Your task to perform on an android device: Search for rayovac triple a on walmart, select the first entry, and add it to the cart. Image 0: 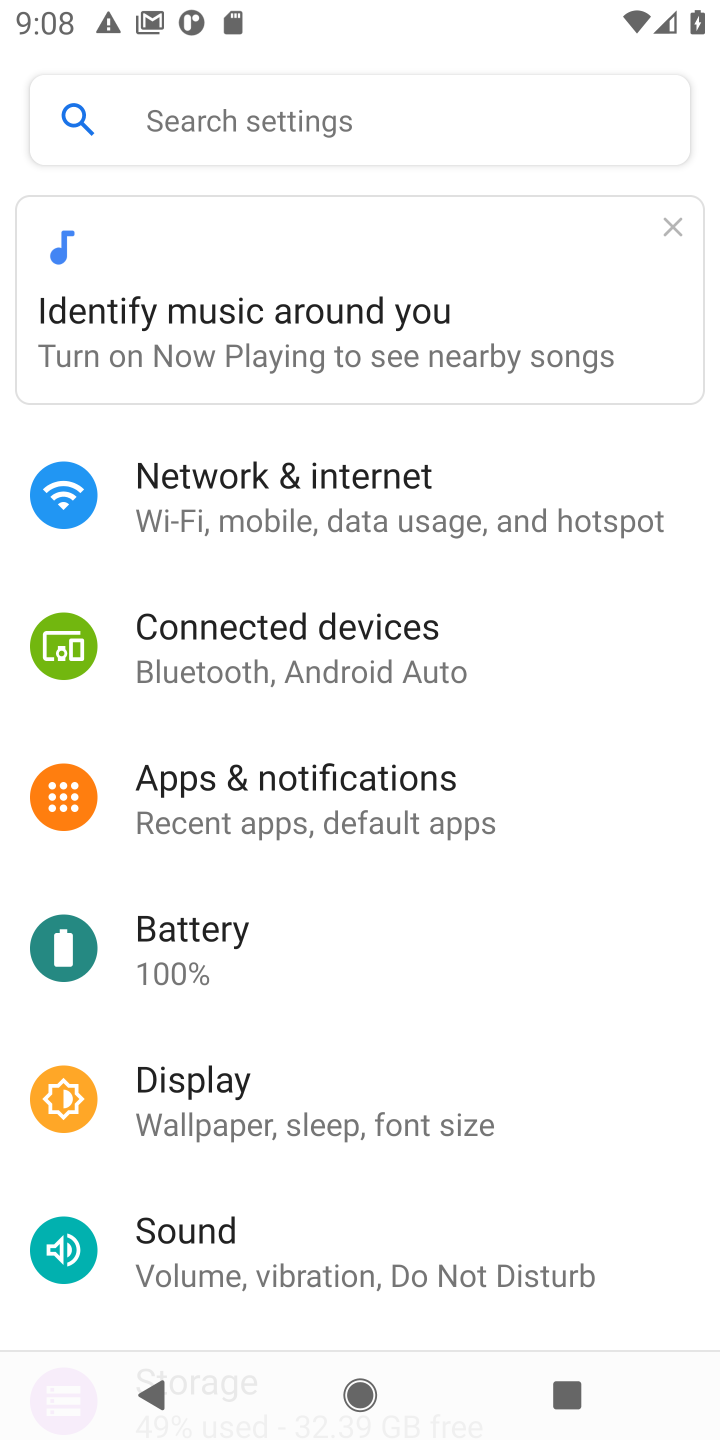
Step 0: press home button
Your task to perform on an android device: Search for rayovac triple a on walmart, select the first entry, and add it to the cart. Image 1: 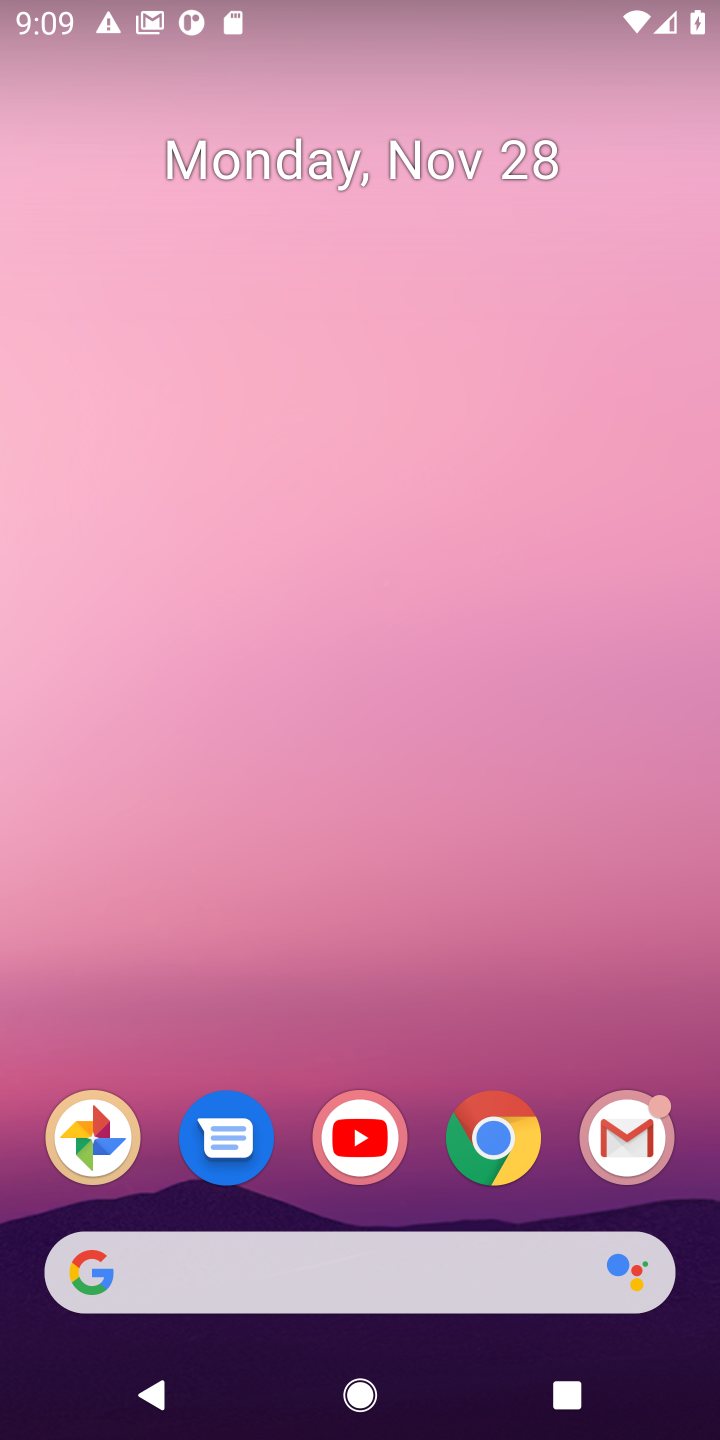
Step 1: click (487, 1124)
Your task to perform on an android device: Search for rayovac triple a on walmart, select the first entry, and add it to the cart. Image 2: 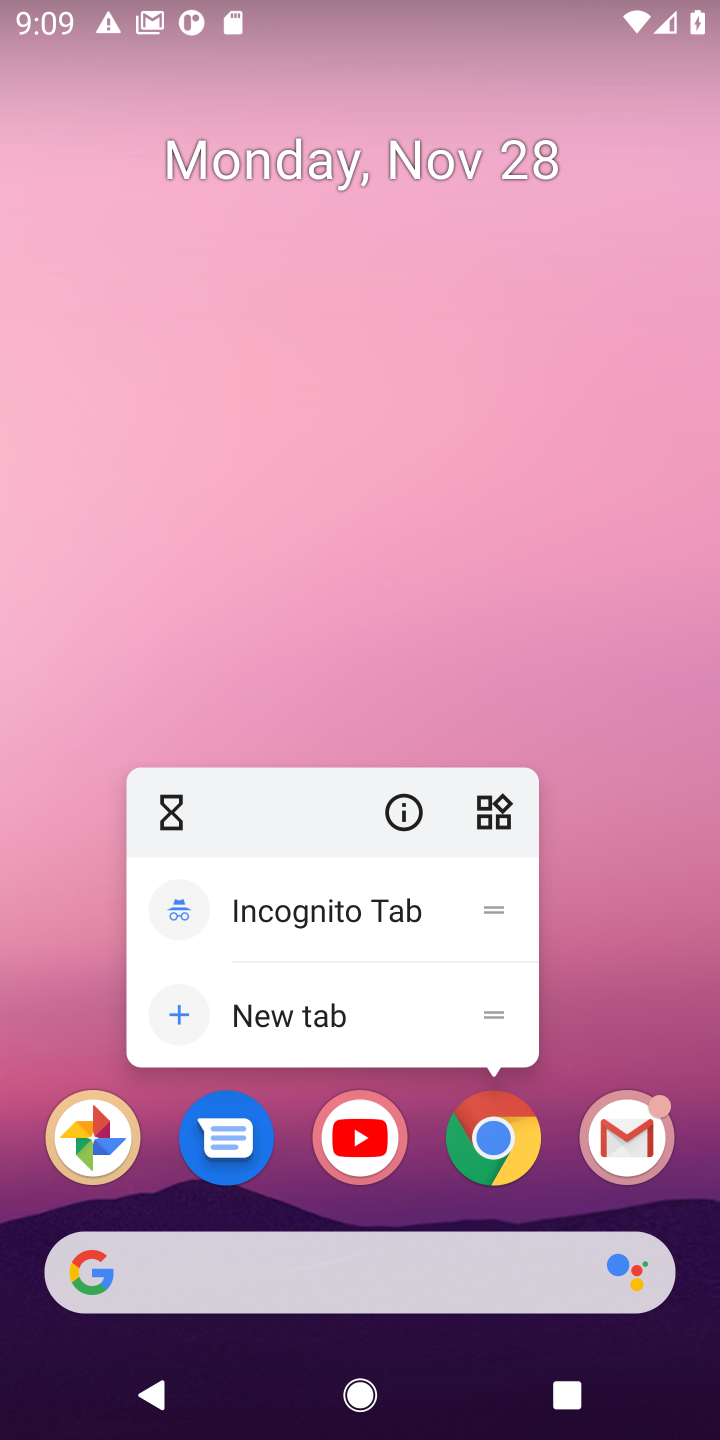
Step 2: click (507, 1147)
Your task to perform on an android device: Search for rayovac triple a on walmart, select the first entry, and add it to the cart. Image 3: 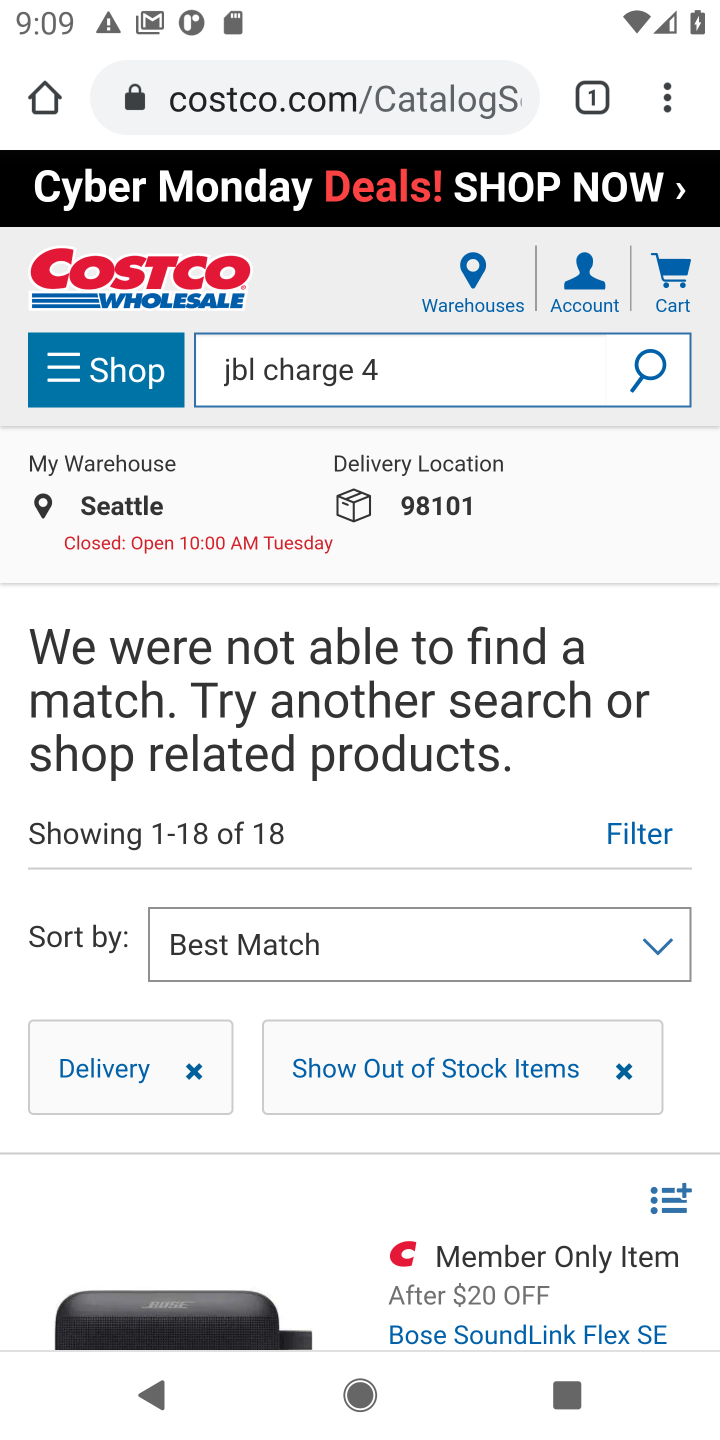
Step 3: click (290, 97)
Your task to perform on an android device: Search for rayovac triple a on walmart, select the first entry, and add it to the cart. Image 4: 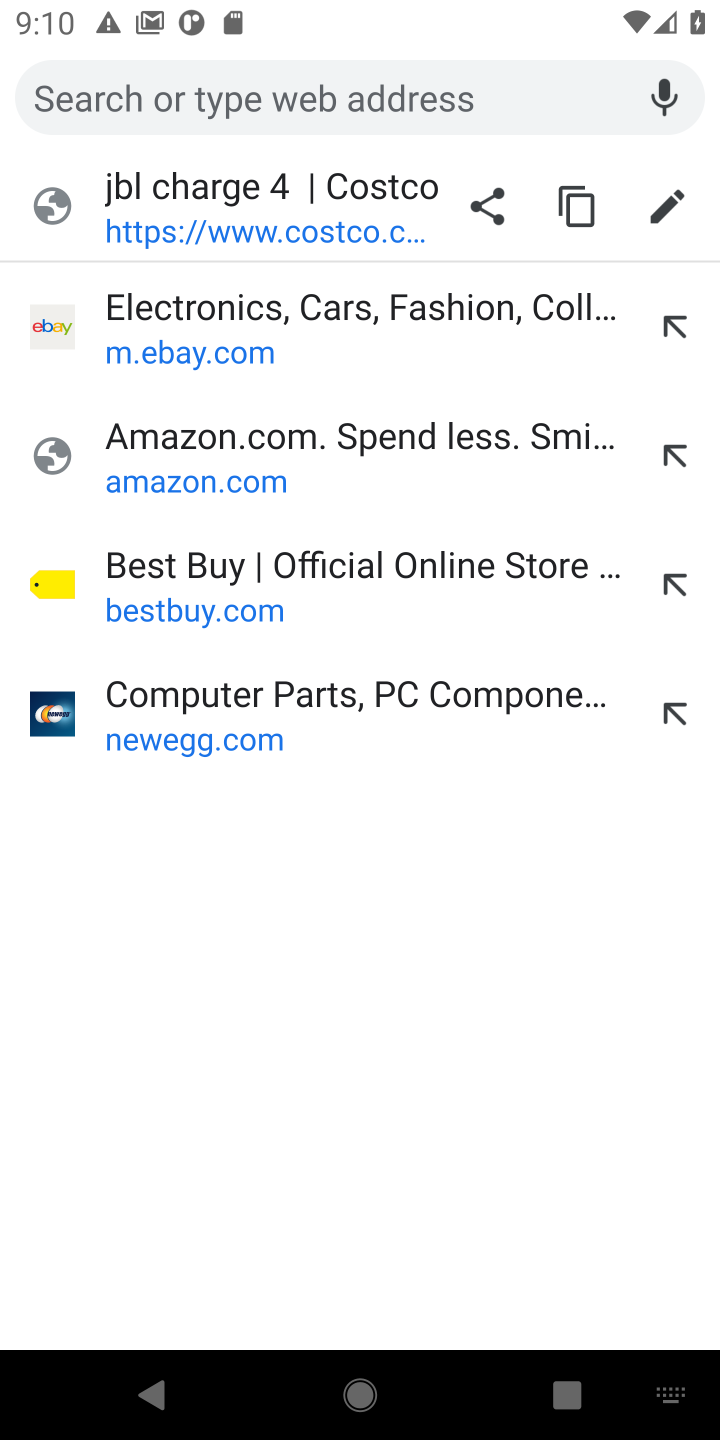
Step 4: type "walmart.com"
Your task to perform on an android device: Search for rayovac triple a on walmart, select the first entry, and add it to the cart. Image 5: 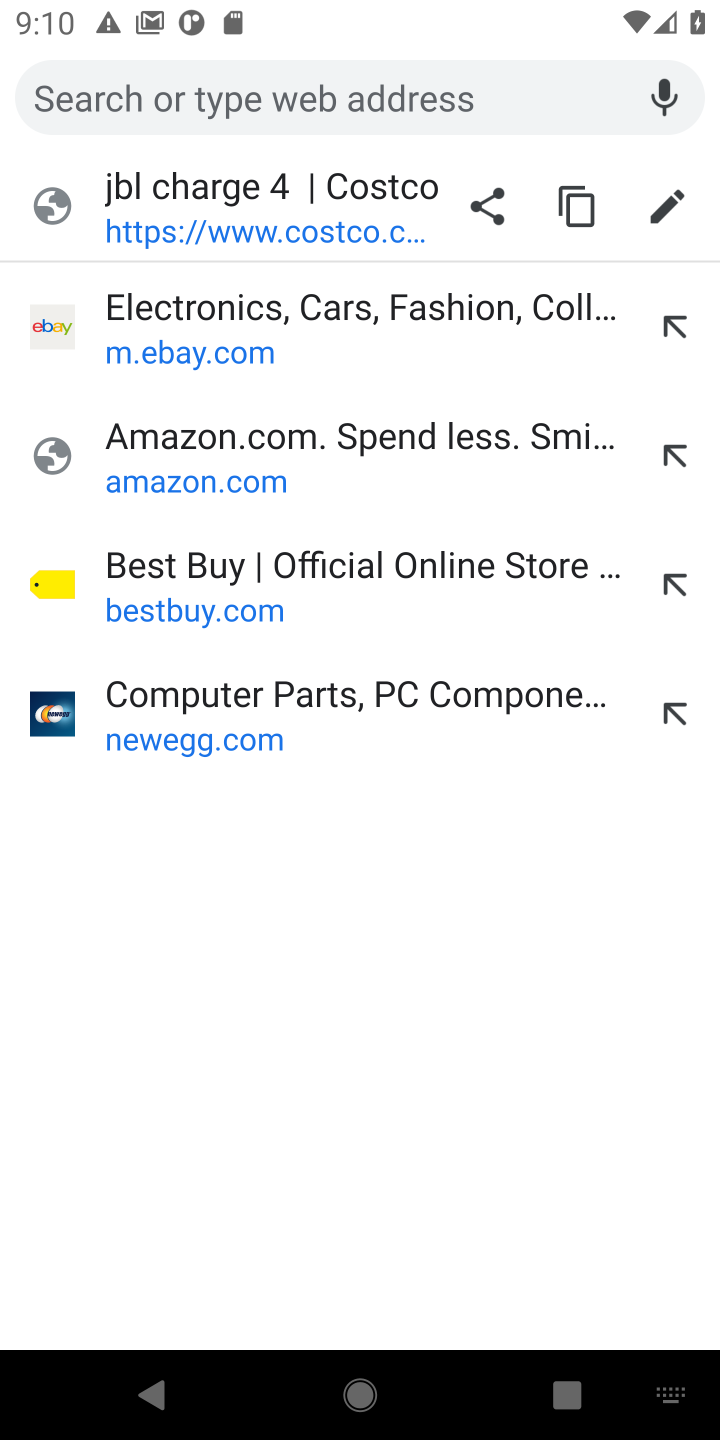
Step 5: click (92, 100)
Your task to perform on an android device: Search for rayovac triple a on walmart, select the first entry, and add it to the cart. Image 6: 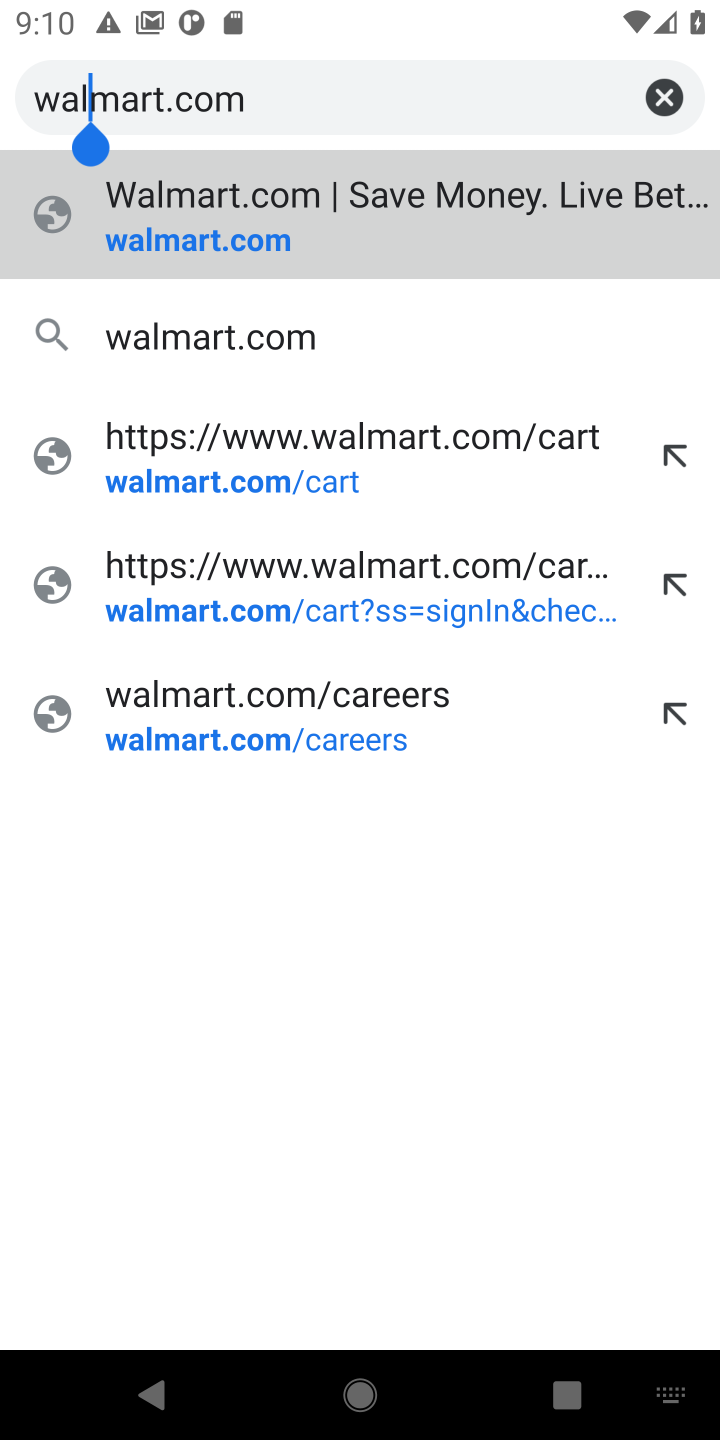
Step 6: click (154, 247)
Your task to perform on an android device: Search for rayovac triple a on walmart, select the first entry, and add it to the cart. Image 7: 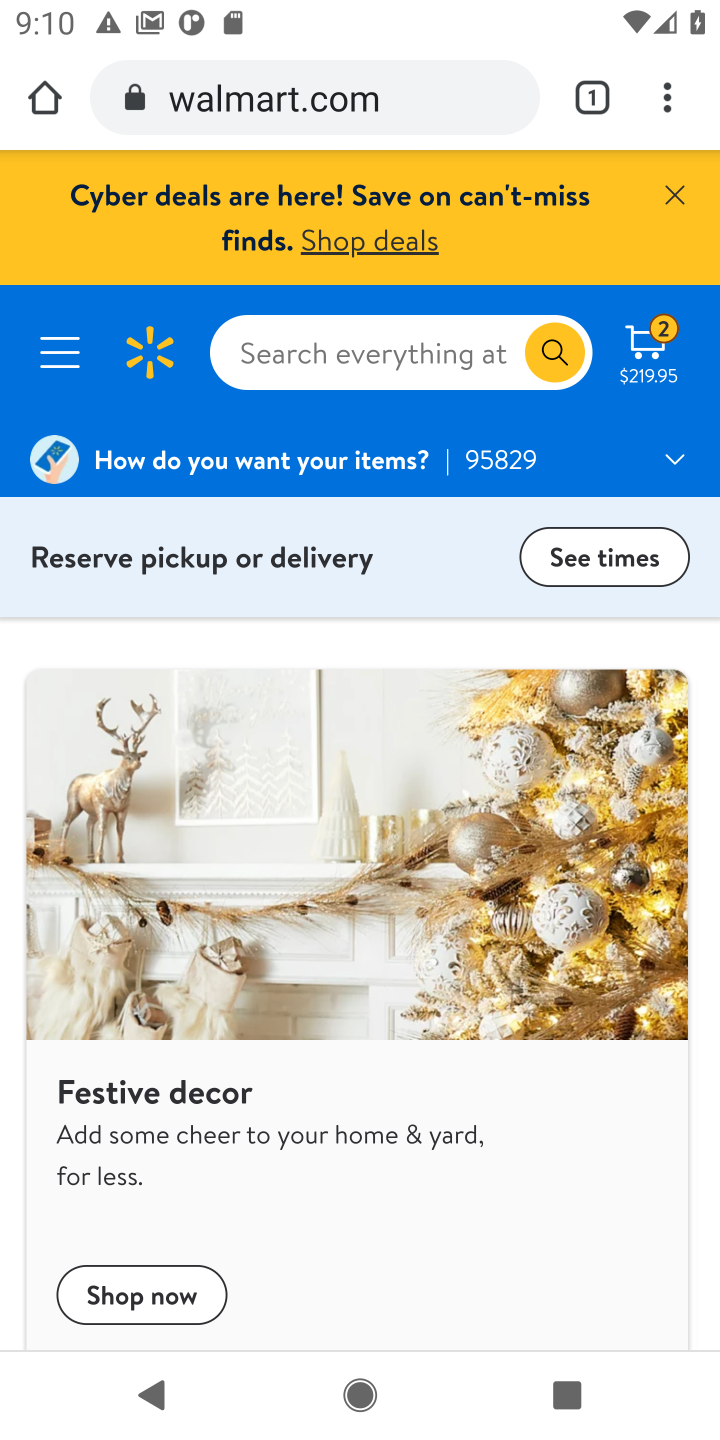
Step 7: click (279, 358)
Your task to perform on an android device: Search for rayovac triple a on walmart, select the first entry, and add it to the cart. Image 8: 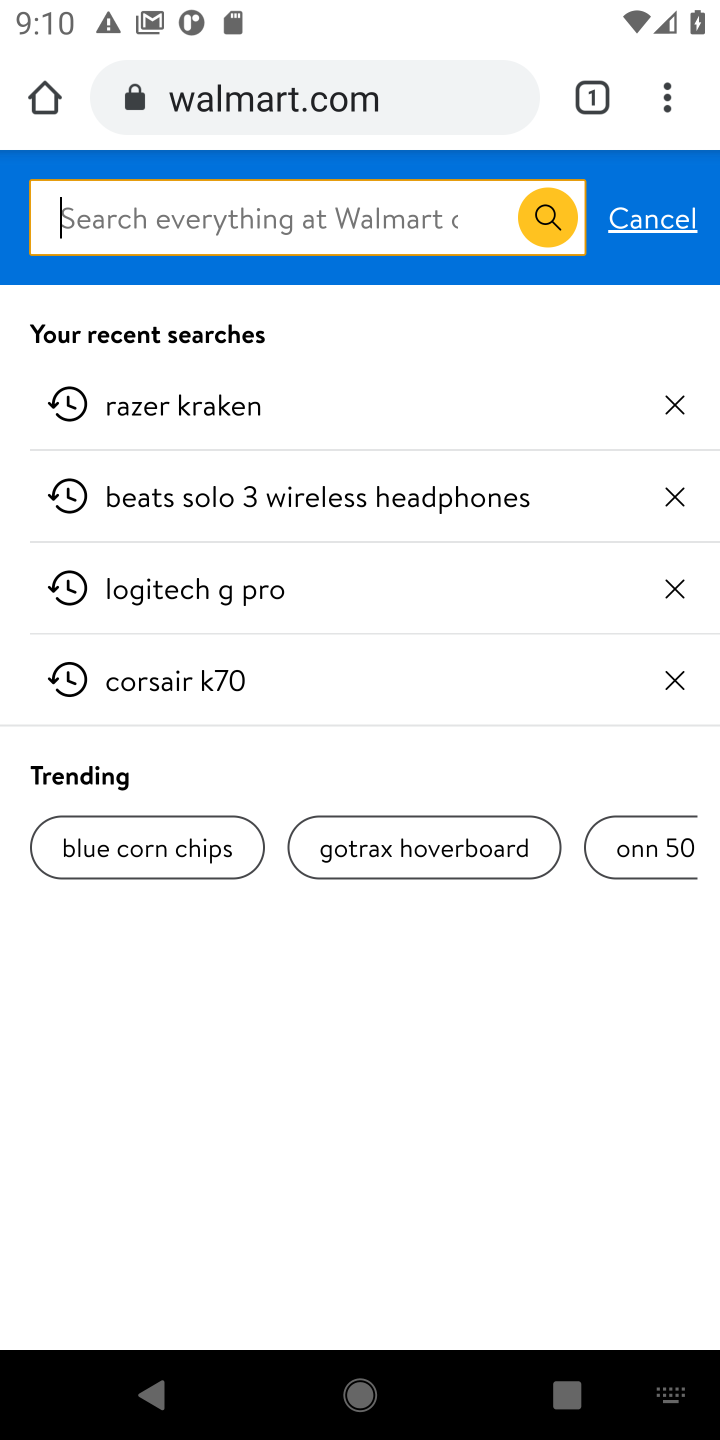
Step 8: type "rayovac triple a"
Your task to perform on an android device: Search for rayovac triple a on walmart, select the first entry, and add it to the cart. Image 9: 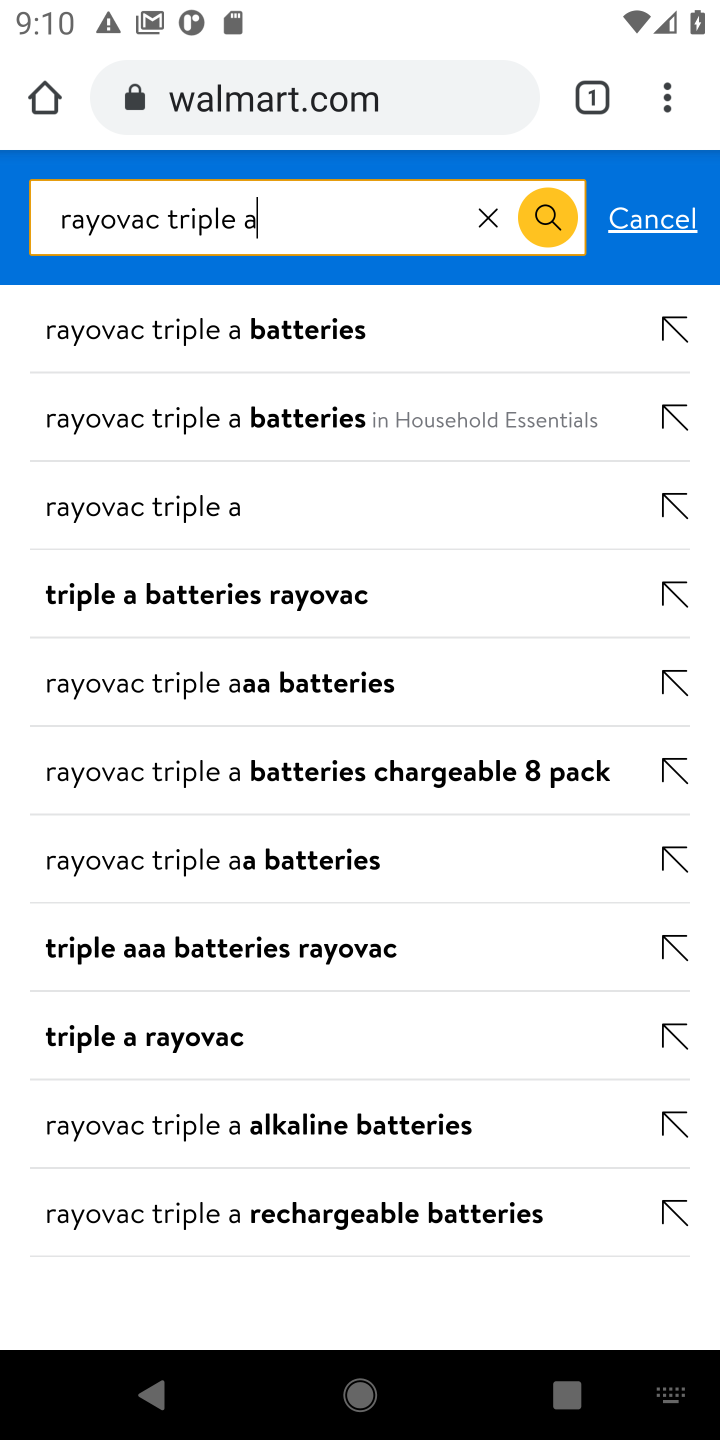
Step 9: click (217, 344)
Your task to perform on an android device: Search for rayovac triple a on walmart, select the first entry, and add it to the cart. Image 10: 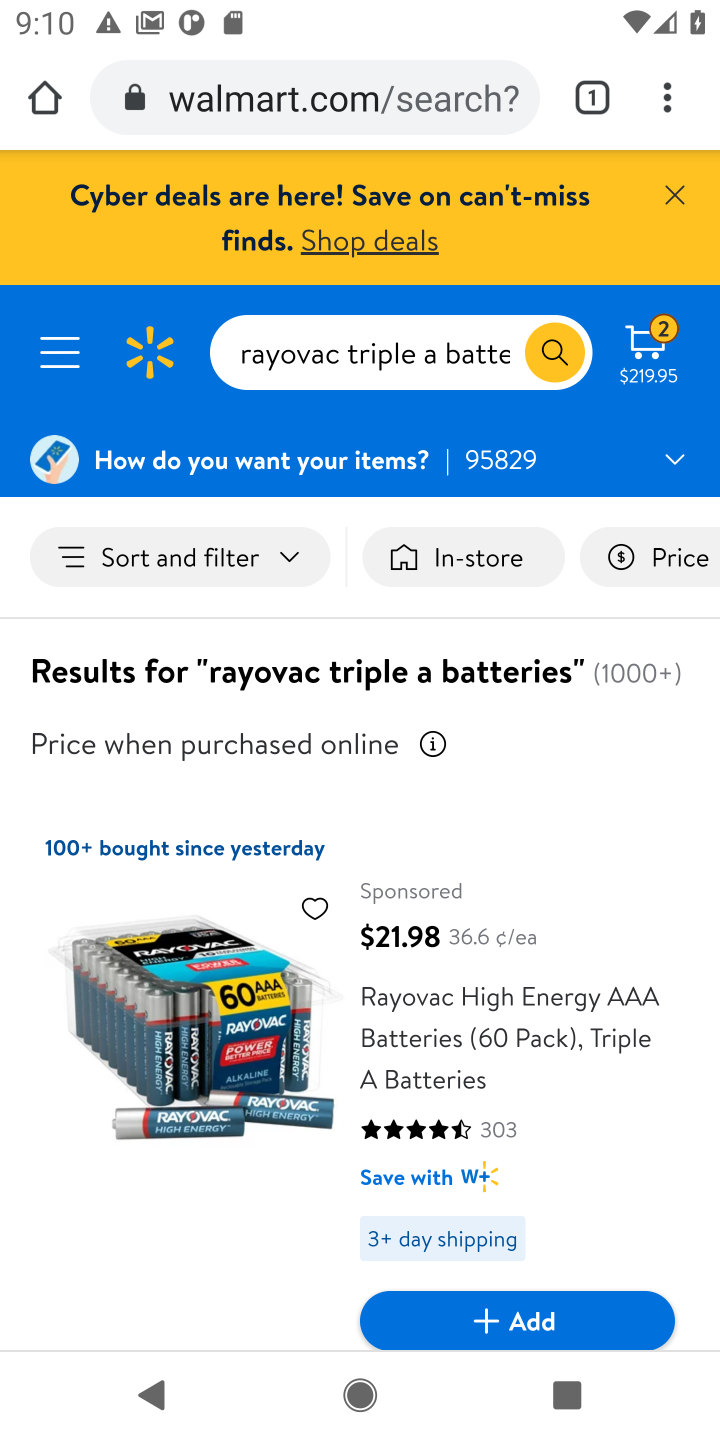
Step 10: click (488, 1322)
Your task to perform on an android device: Search for rayovac triple a on walmart, select the first entry, and add it to the cart. Image 11: 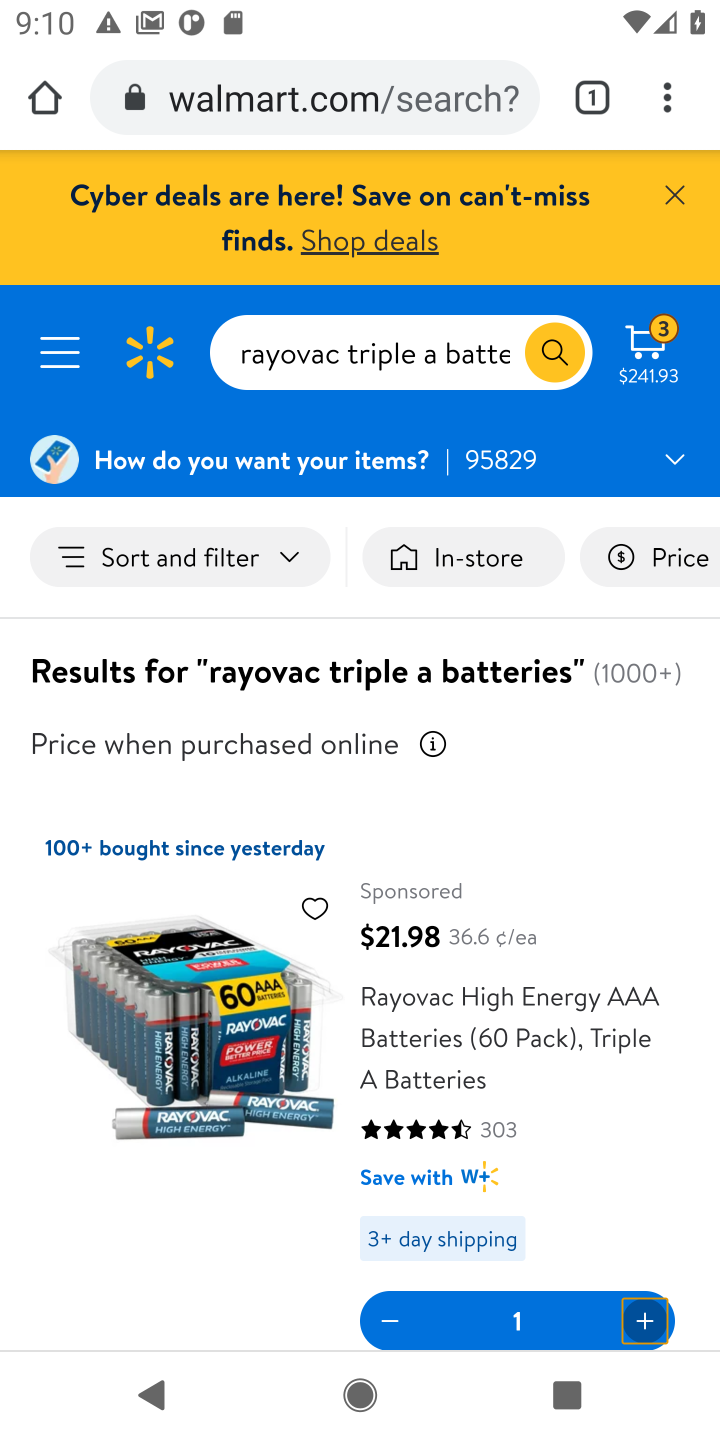
Step 11: task complete